Your task to perform on an android device: What is the recent news? Image 0: 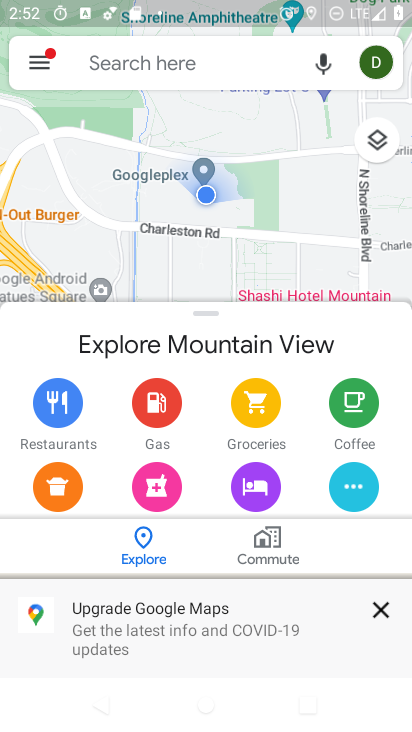
Step 0: press home button
Your task to perform on an android device: What is the recent news? Image 1: 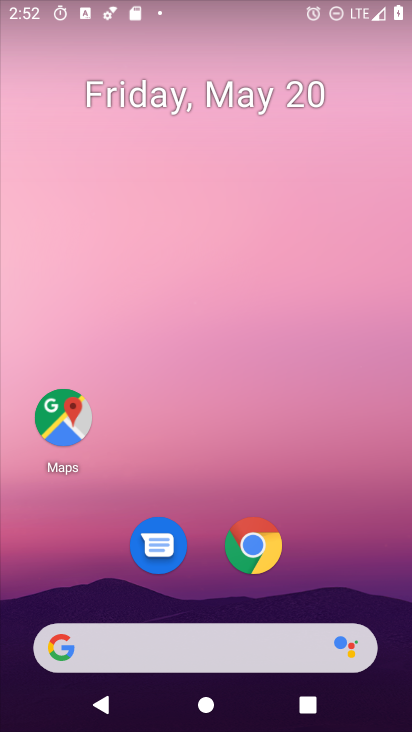
Step 1: drag from (287, 669) to (281, 125)
Your task to perform on an android device: What is the recent news? Image 2: 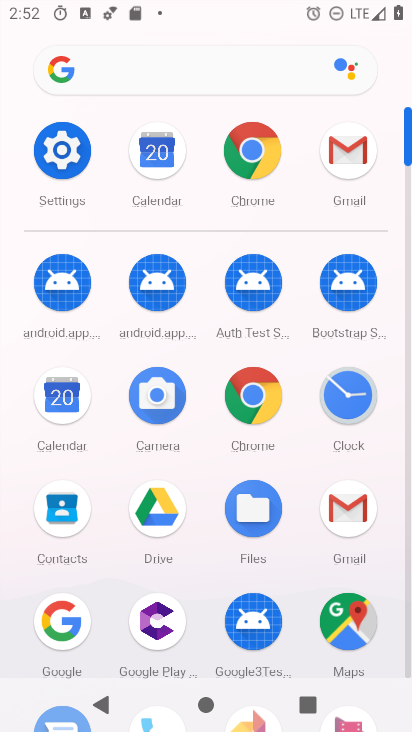
Step 2: click (265, 395)
Your task to perform on an android device: What is the recent news? Image 3: 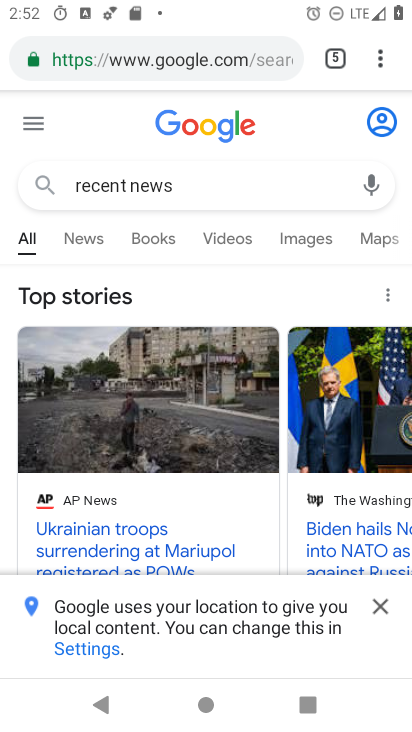
Step 3: task complete